Your task to perform on an android device: open sync settings in chrome Image 0: 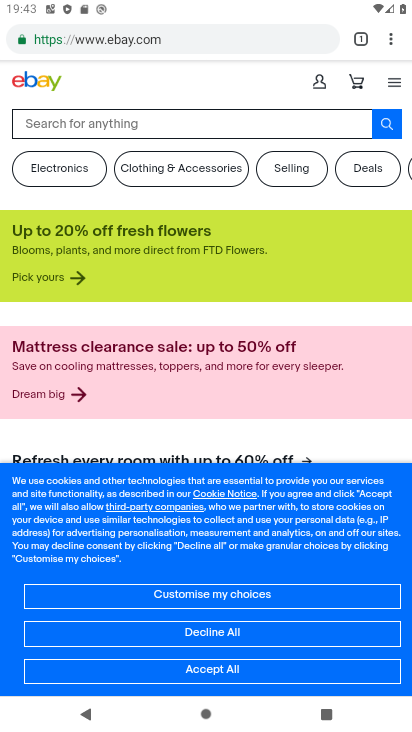
Step 0: click (382, 38)
Your task to perform on an android device: open sync settings in chrome Image 1: 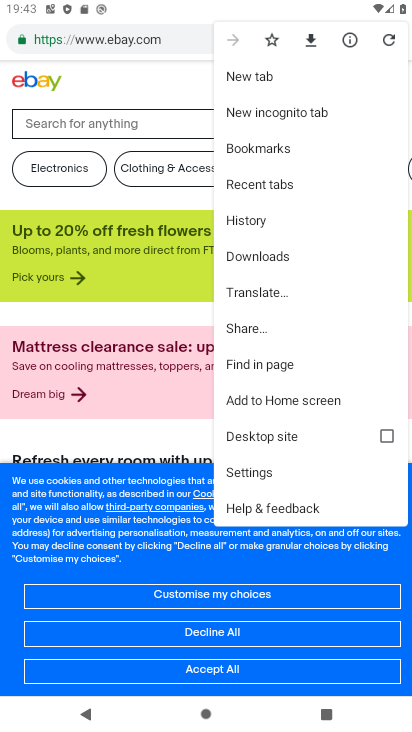
Step 1: click (293, 477)
Your task to perform on an android device: open sync settings in chrome Image 2: 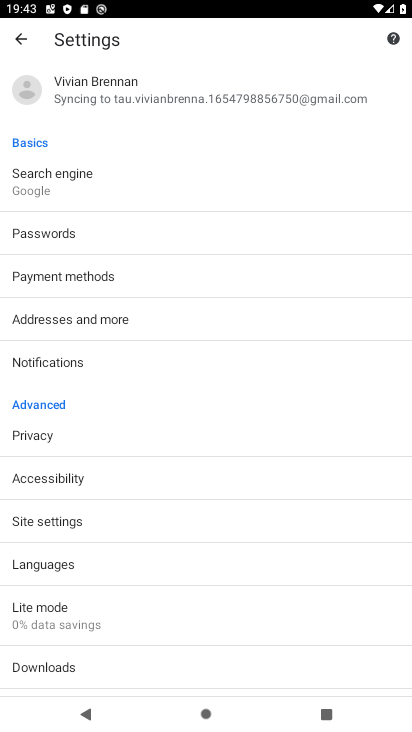
Step 2: click (130, 103)
Your task to perform on an android device: open sync settings in chrome Image 3: 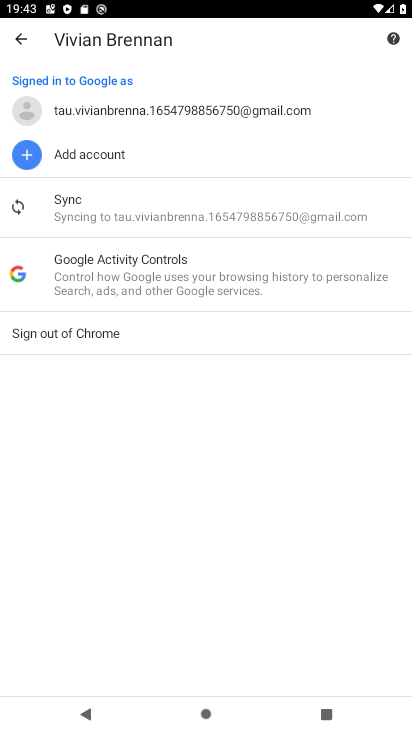
Step 3: click (120, 198)
Your task to perform on an android device: open sync settings in chrome Image 4: 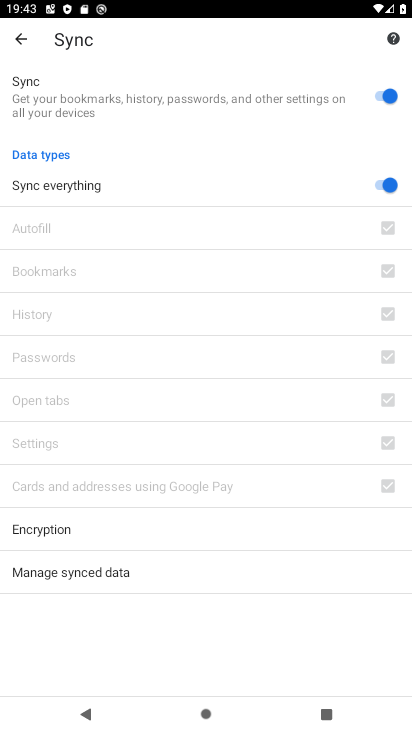
Step 4: task complete